Your task to perform on an android device: turn on wifi Image 0: 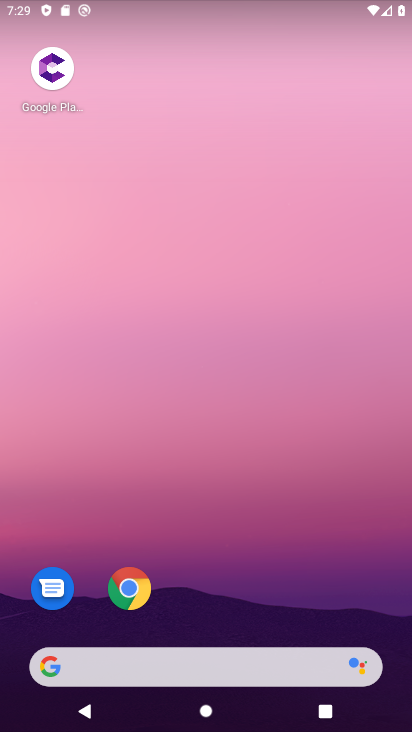
Step 0: drag from (234, 542) to (170, 2)
Your task to perform on an android device: turn on wifi Image 1: 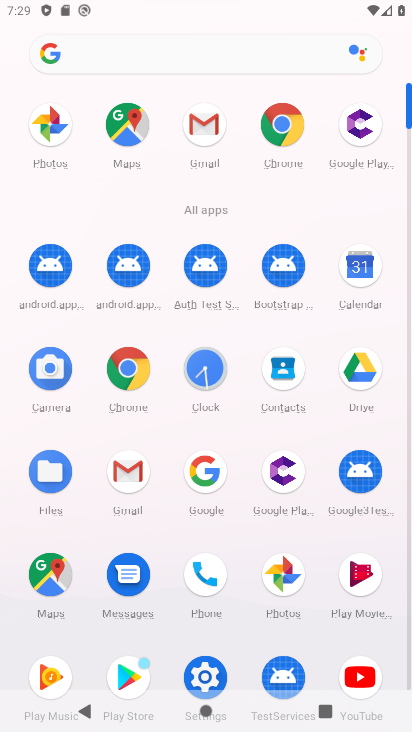
Step 1: click (207, 668)
Your task to perform on an android device: turn on wifi Image 2: 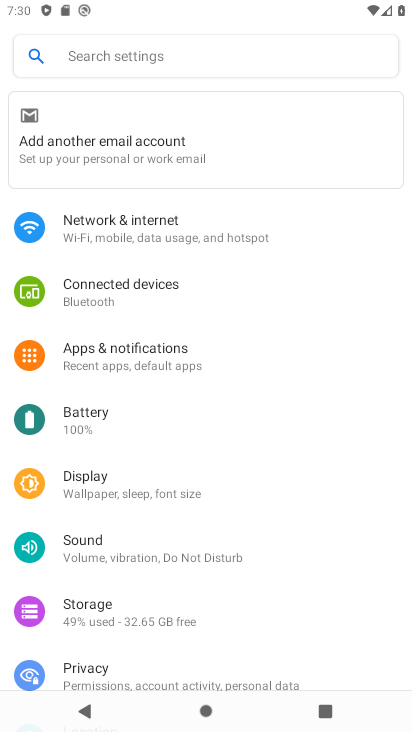
Step 2: click (121, 210)
Your task to perform on an android device: turn on wifi Image 3: 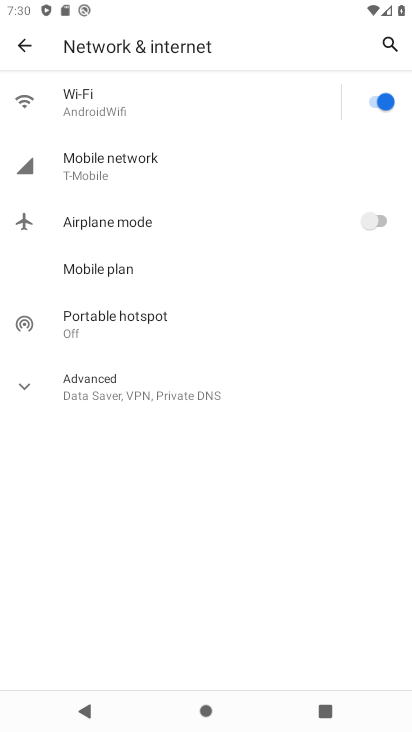
Step 3: task complete